Your task to perform on an android device: turn vacation reply on in the gmail app Image 0: 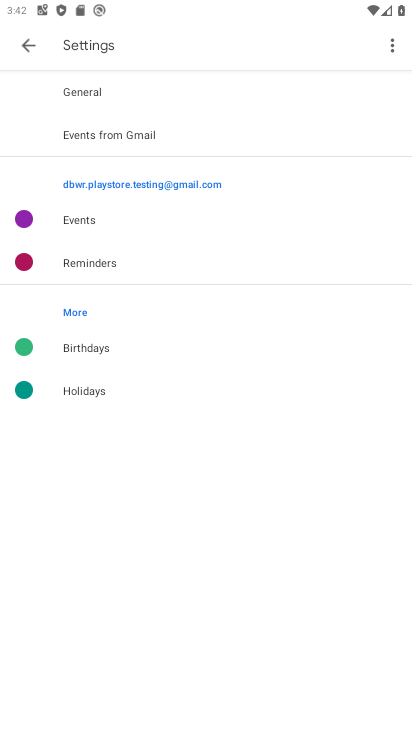
Step 0: press back button
Your task to perform on an android device: turn vacation reply on in the gmail app Image 1: 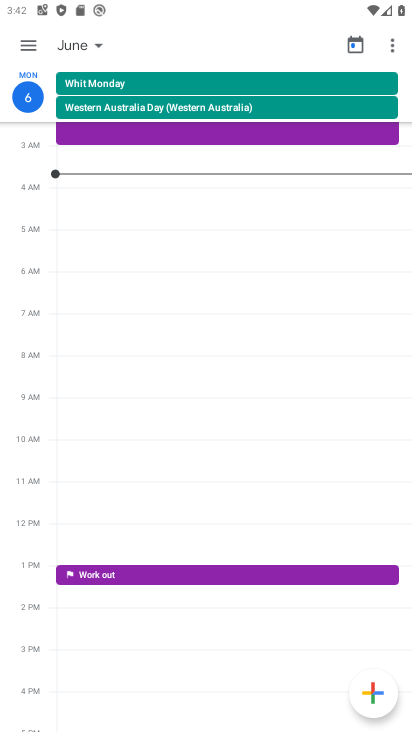
Step 1: press back button
Your task to perform on an android device: turn vacation reply on in the gmail app Image 2: 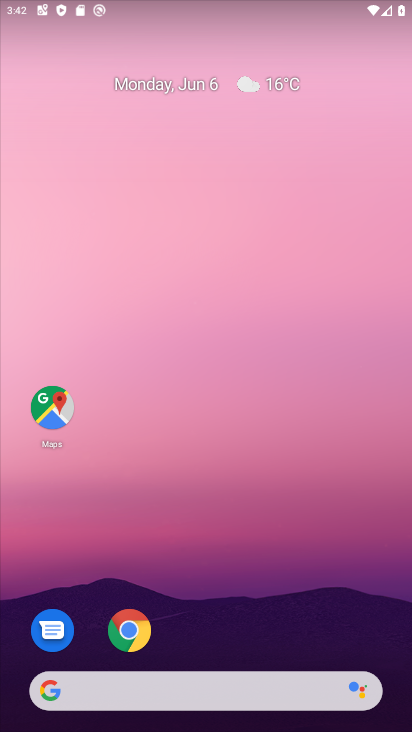
Step 2: drag from (285, 568) to (304, 24)
Your task to perform on an android device: turn vacation reply on in the gmail app Image 3: 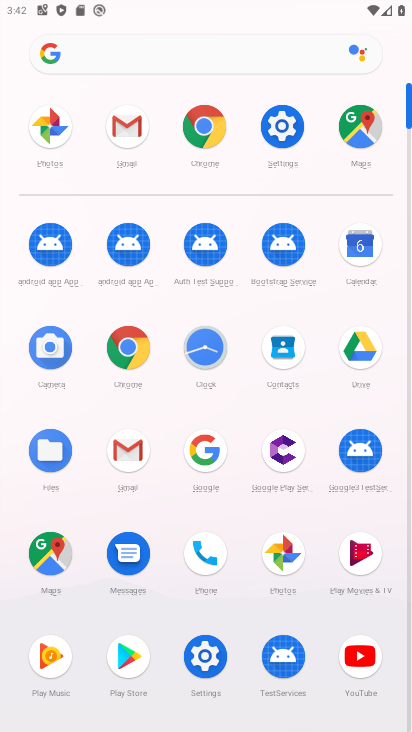
Step 3: click (132, 124)
Your task to perform on an android device: turn vacation reply on in the gmail app Image 4: 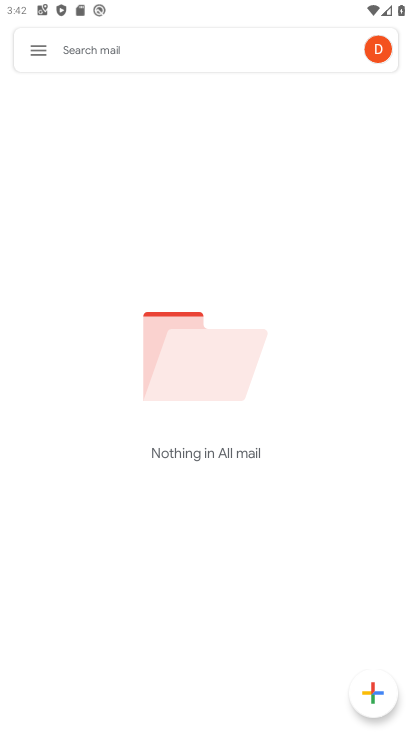
Step 4: click (32, 41)
Your task to perform on an android device: turn vacation reply on in the gmail app Image 5: 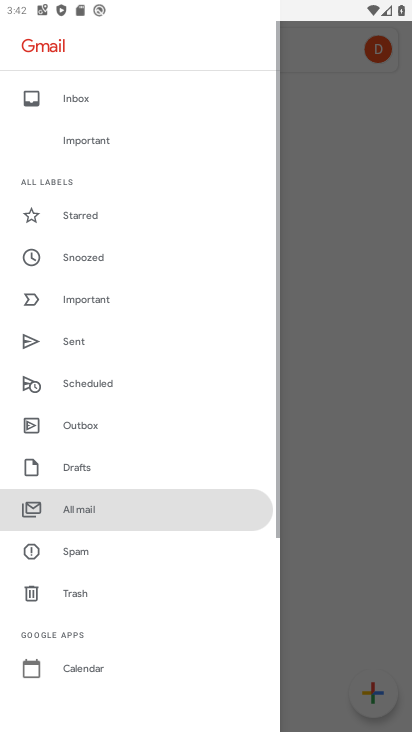
Step 5: drag from (84, 635) to (160, 143)
Your task to perform on an android device: turn vacation reply on in the gmail app Image 6: 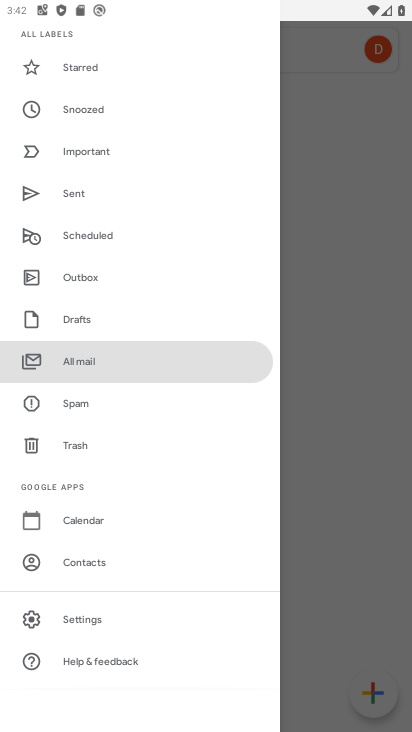
Step 6: click (71, 633)
Your task to perform on an android device: turn vacation reply on in the gmail app Image 7: 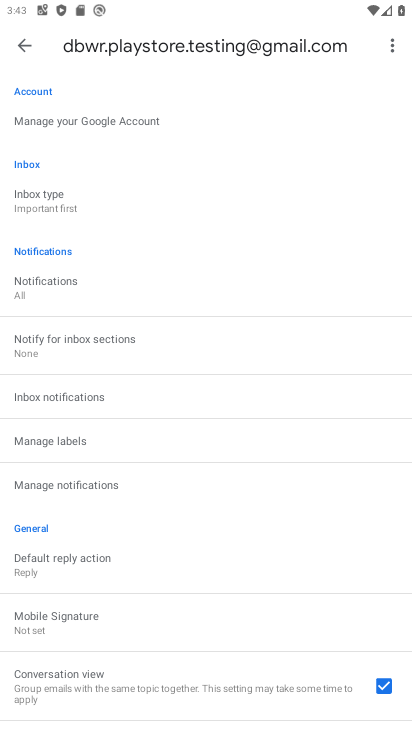
Step 7: drag from (108, 643) to (208, 147)
Your task to perform on an android device: turn vacation reply on in the gmail app Image 8: 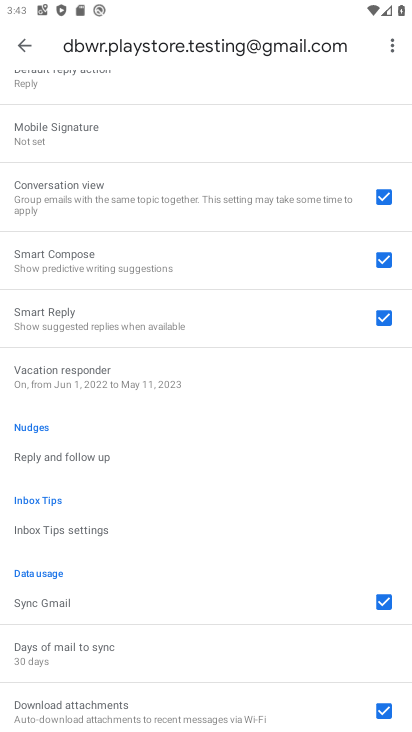
Step 8: click (46, 368)
Your task to perform on an android device: turn vacation reply on in the gmail app Image 9: 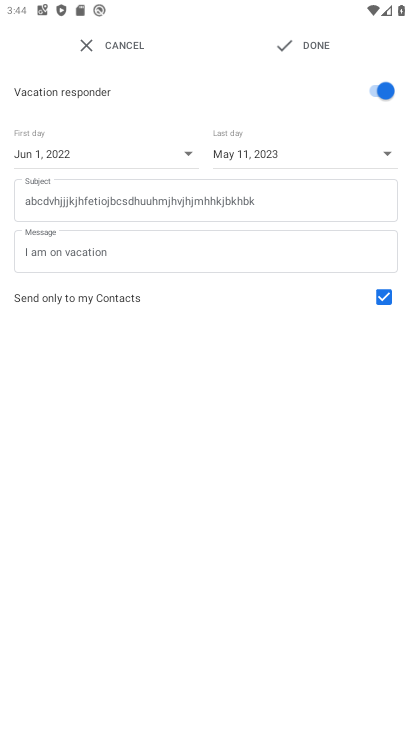
Step 9: task complete